Your task to perform on an android device: Open the map Image 0: 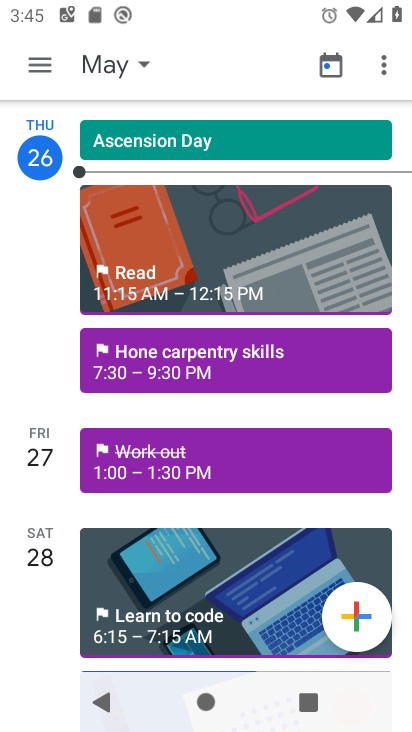
Step 0: press home button
Your task to perform on an android device: Open the map Image 1: 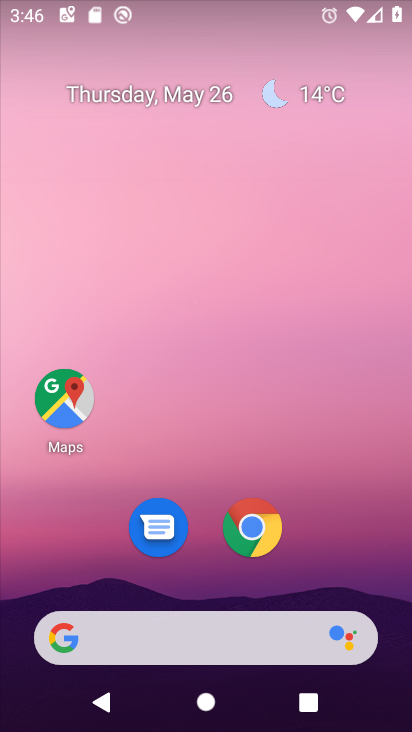
Step 1: click (59, 398)
Your task to perform on an android device: Open the map Image 2: 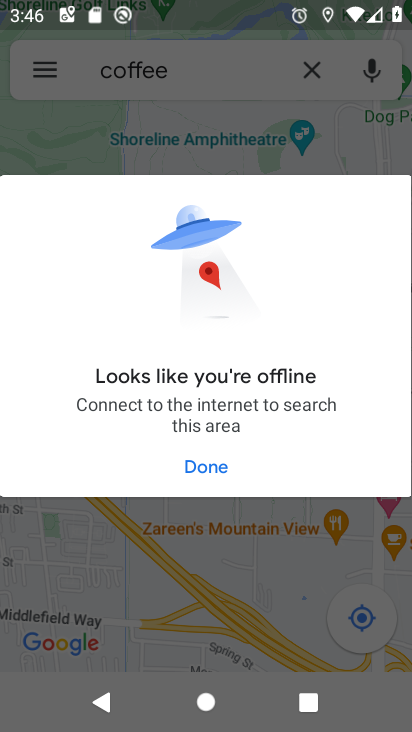
Step 2: click (201, 466)
Your task to perform on an android device: Open the map Image 3: 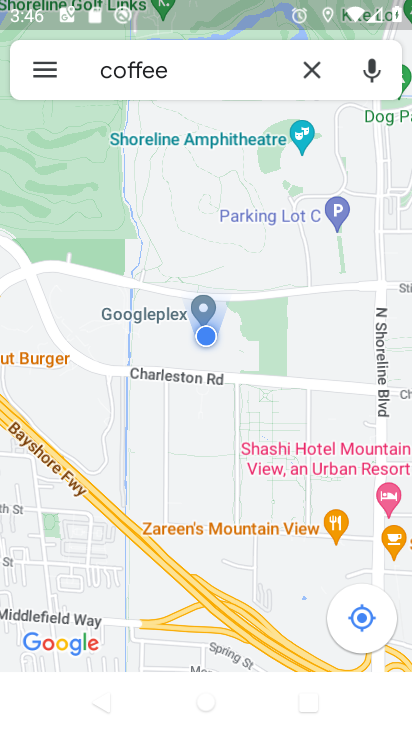
Step 3: task complete